Your task to perform on an android device: uninstall "Pluto TV - Live TV and Movies" Image 0: 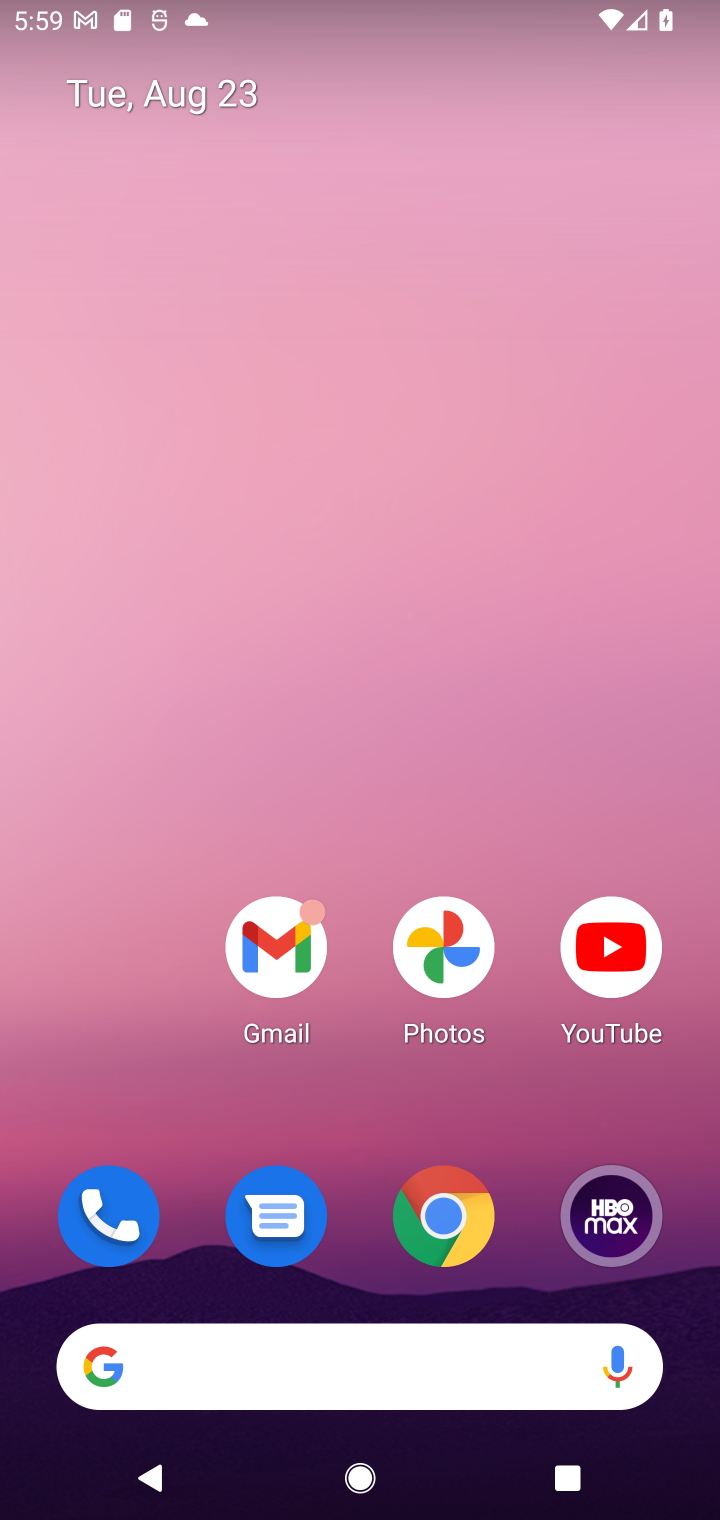
Step 0: drag from (353, 1191) to (439, 183)
Your task to perform on an android device: uninstall "Pluto TV - Live TV and Movies" Image 1: 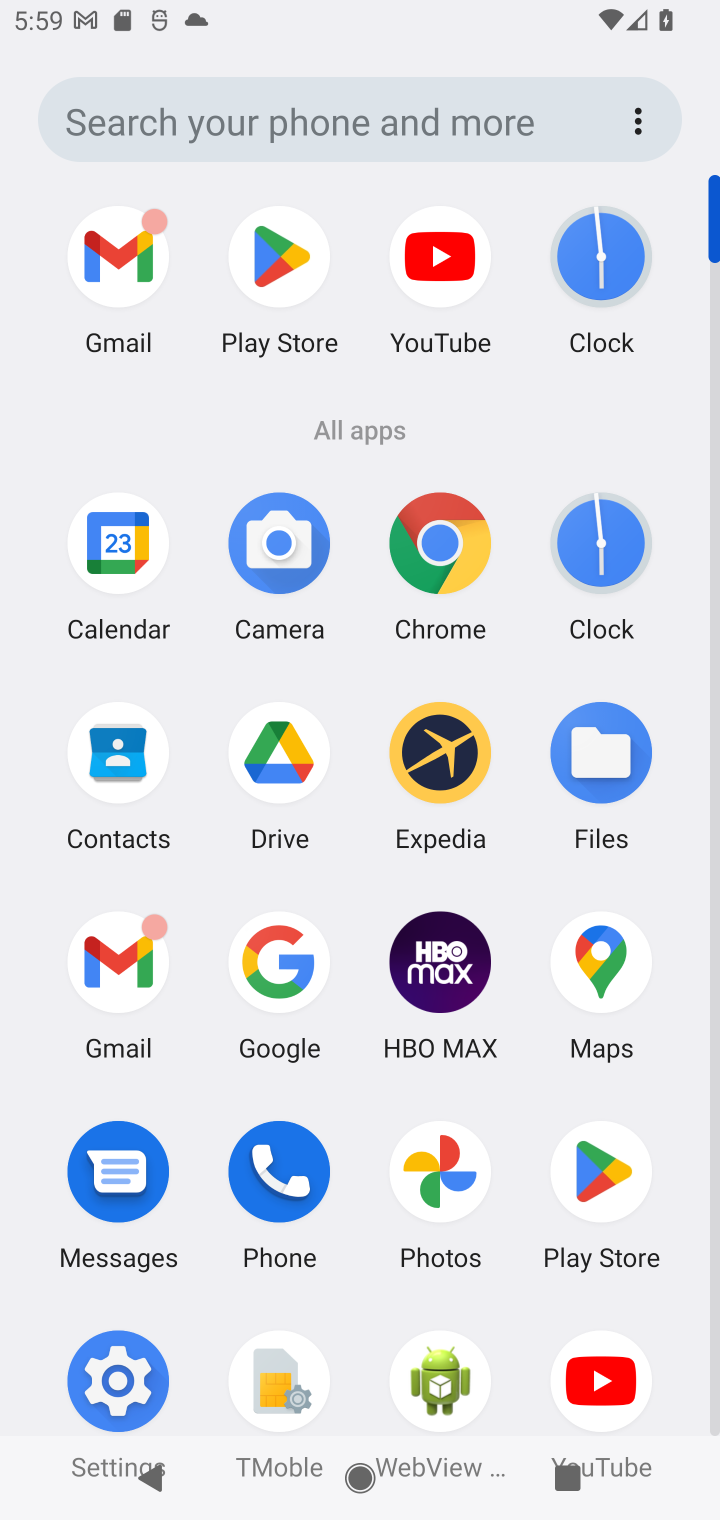
Step 1: click (608, 1184)
Your task to perform on an android device: uninstall "Pluto TV - Live TV and Movies" Image 2: 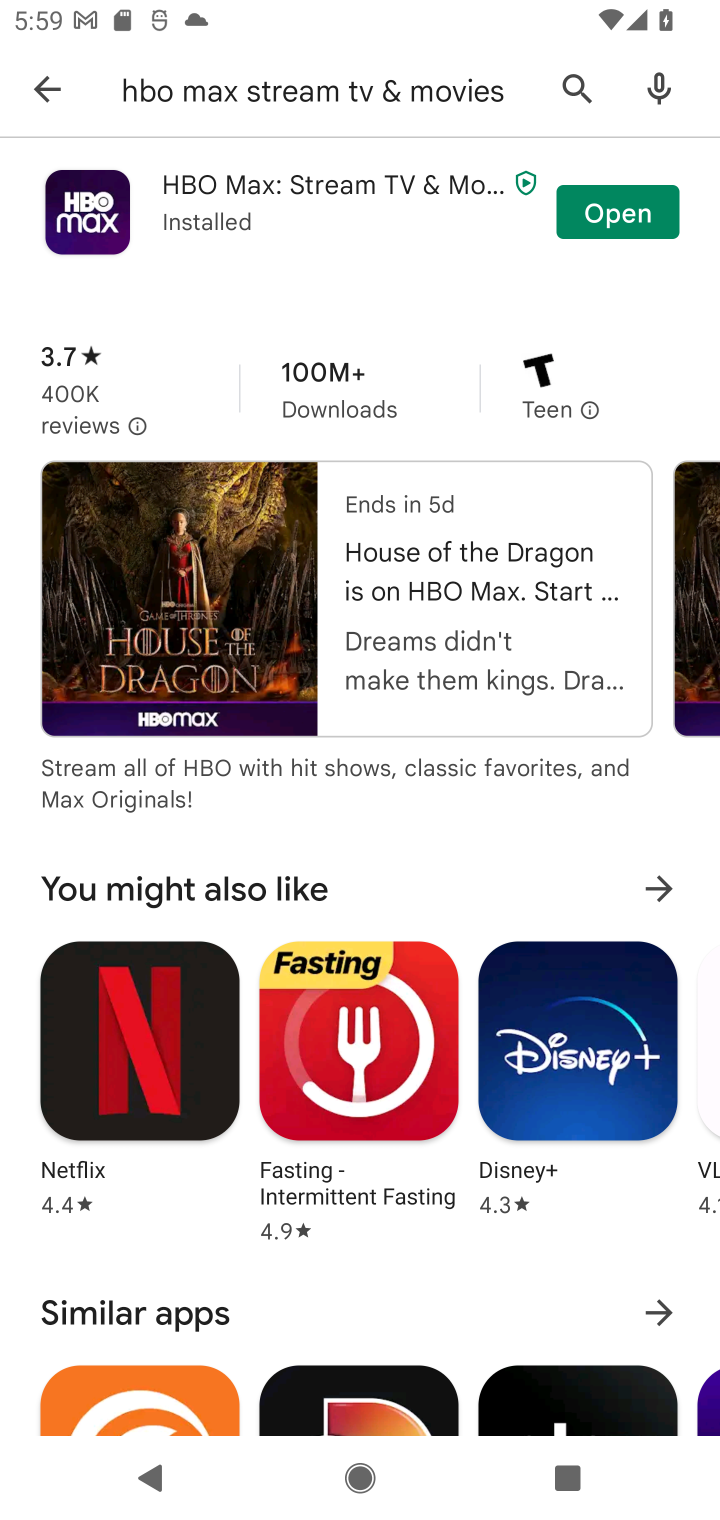
Step 2: type "Pluto TV - Live TV and Movies"
Your task to perform on an android device: uninstall "Pluto TV - Live TV and Movies" Image 3: 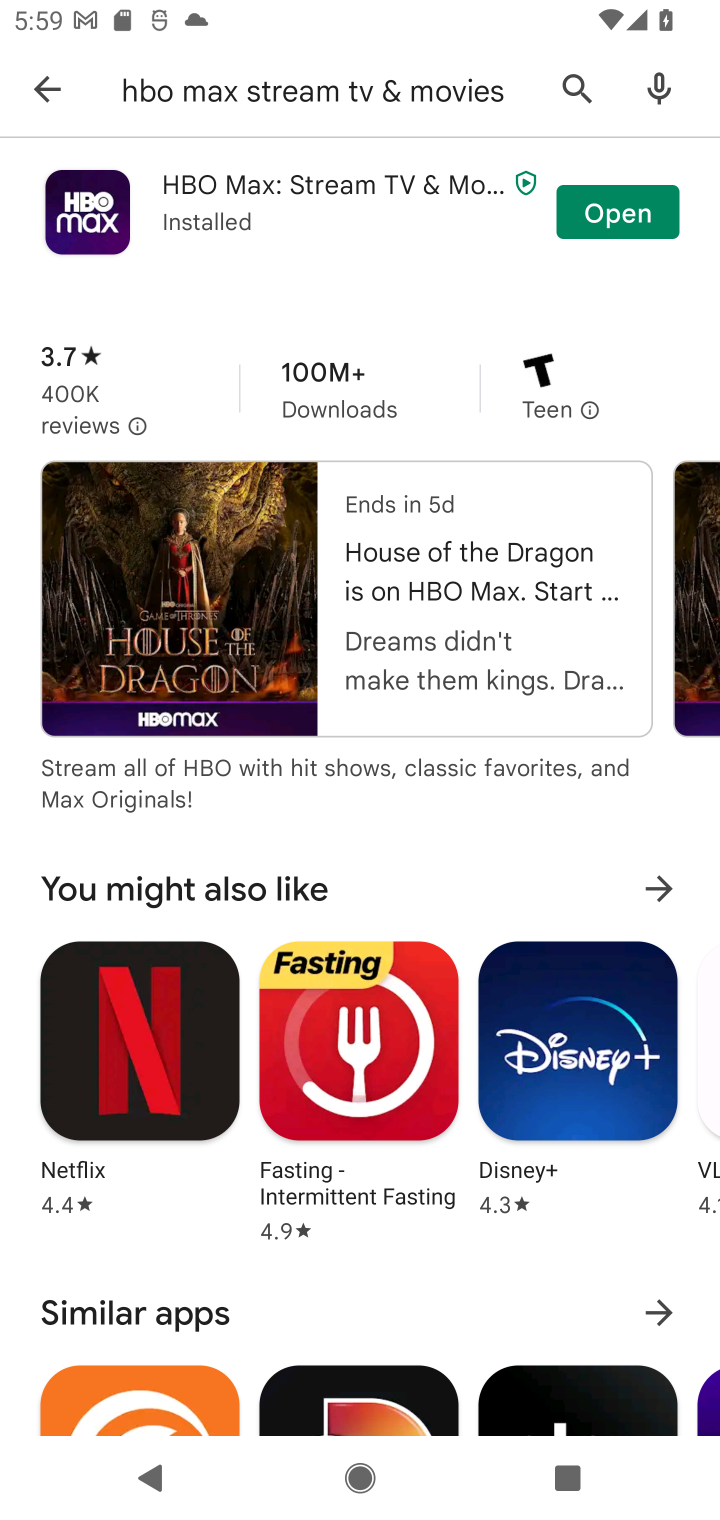
Step 3: click (574, 90)
Your task to perform on an android device: uninstall "Pluto TV - Live TV and Movies" Image 4: 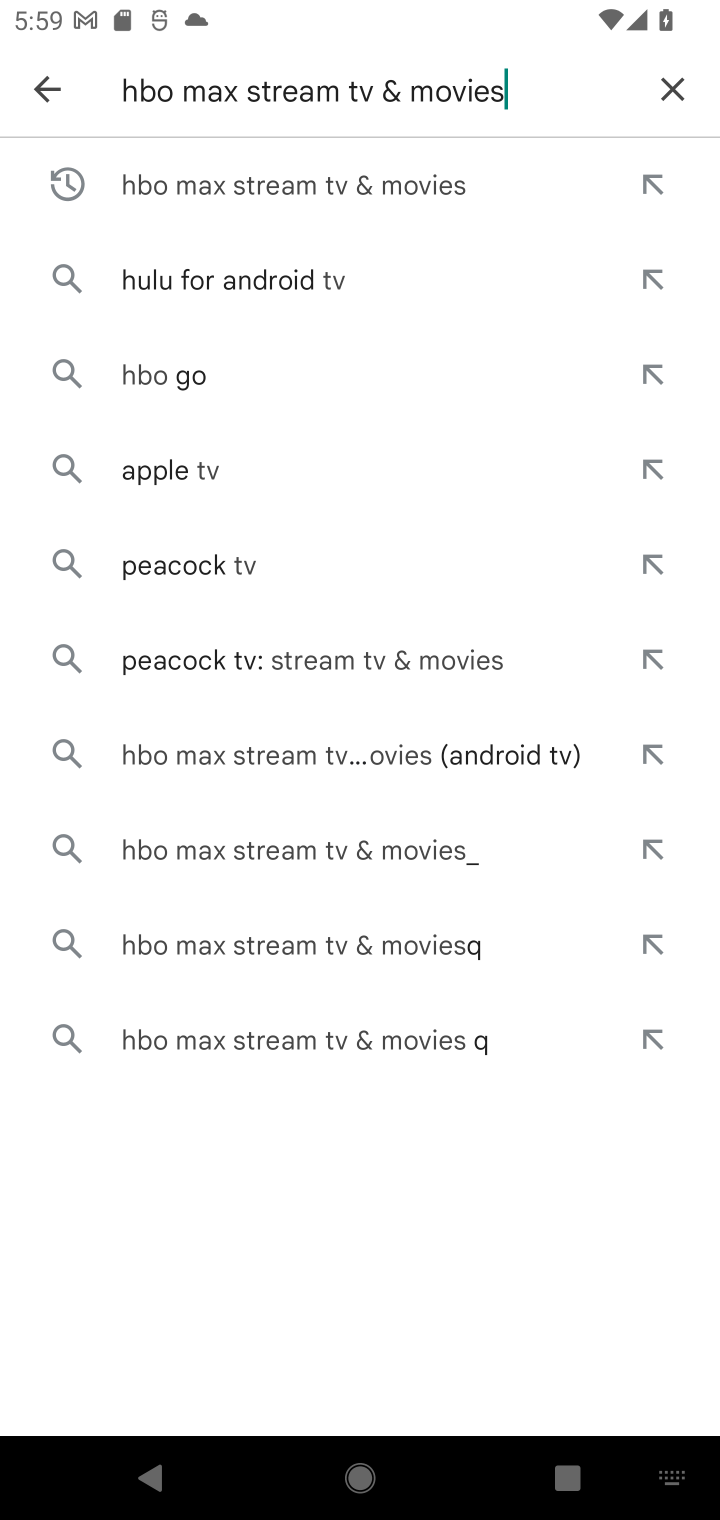
Step 4: click (677, 82)
Your task to perform on an android device: uninstall "Pluto TV - Live TV and Movies" Image 5: 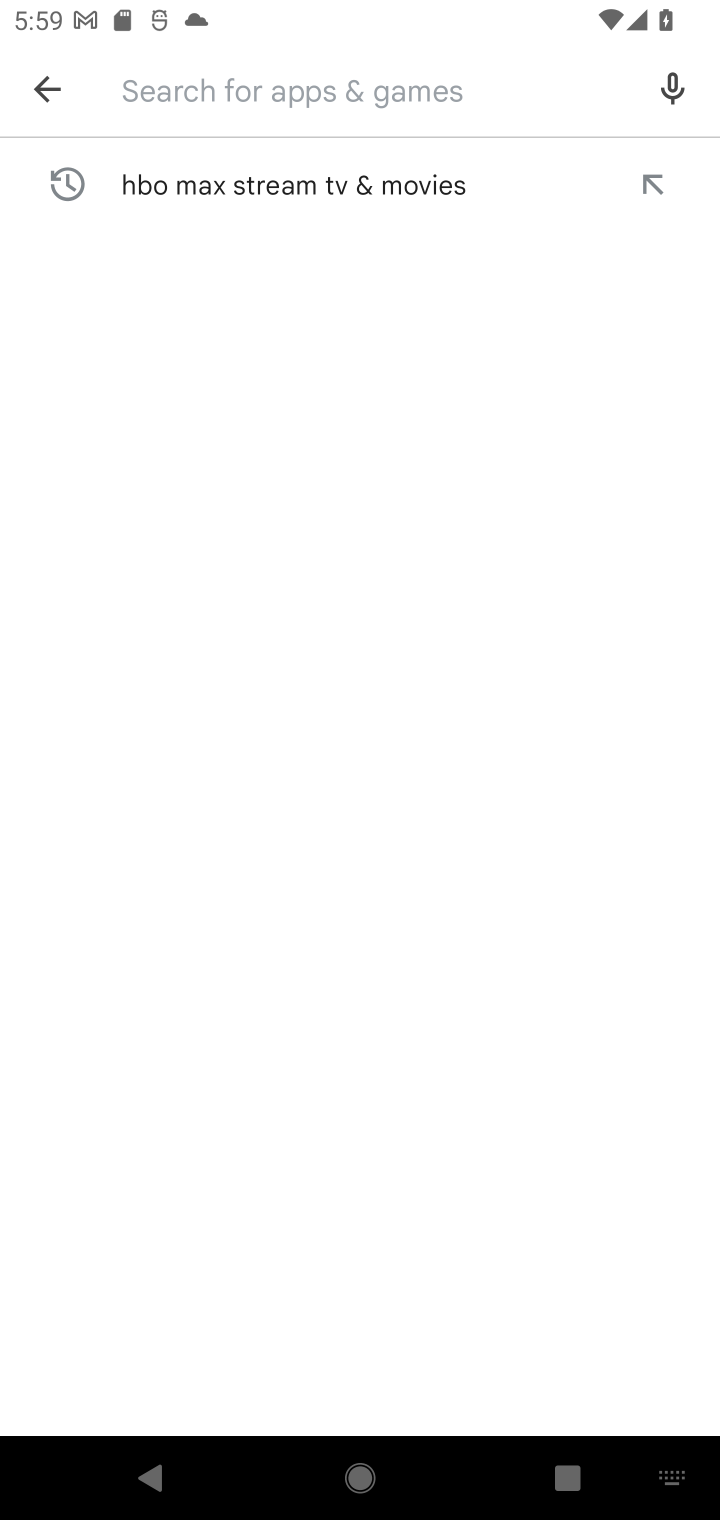
Step 5: type "Pluto TV - Live TV and Movies"
Your task to perform on an android device: uninstall "Pluto TV - Live TV and Movies" Image 6: 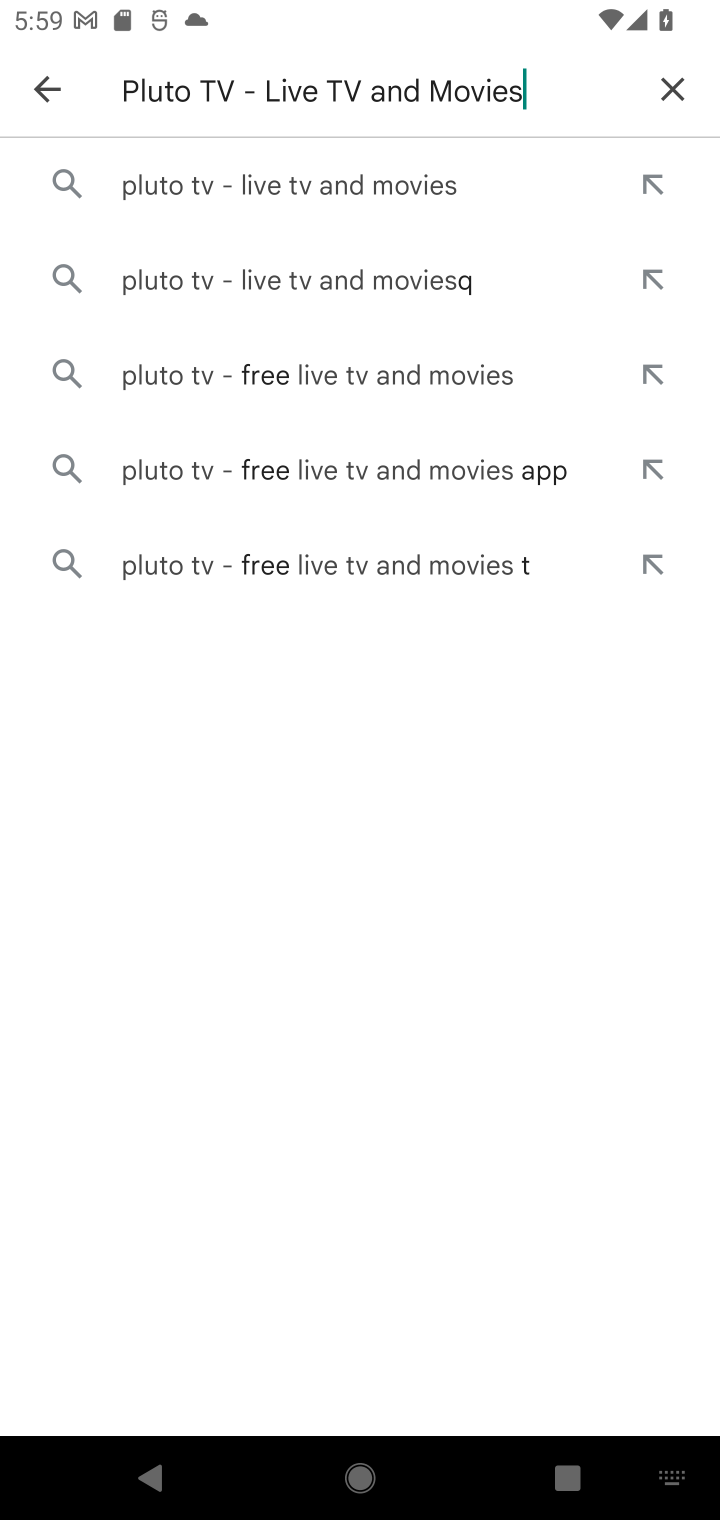
Step 6: click (324, 175)
Your task to perform on an android device: uninstall "Pluto TV - Live TV and Movies" Image 7: 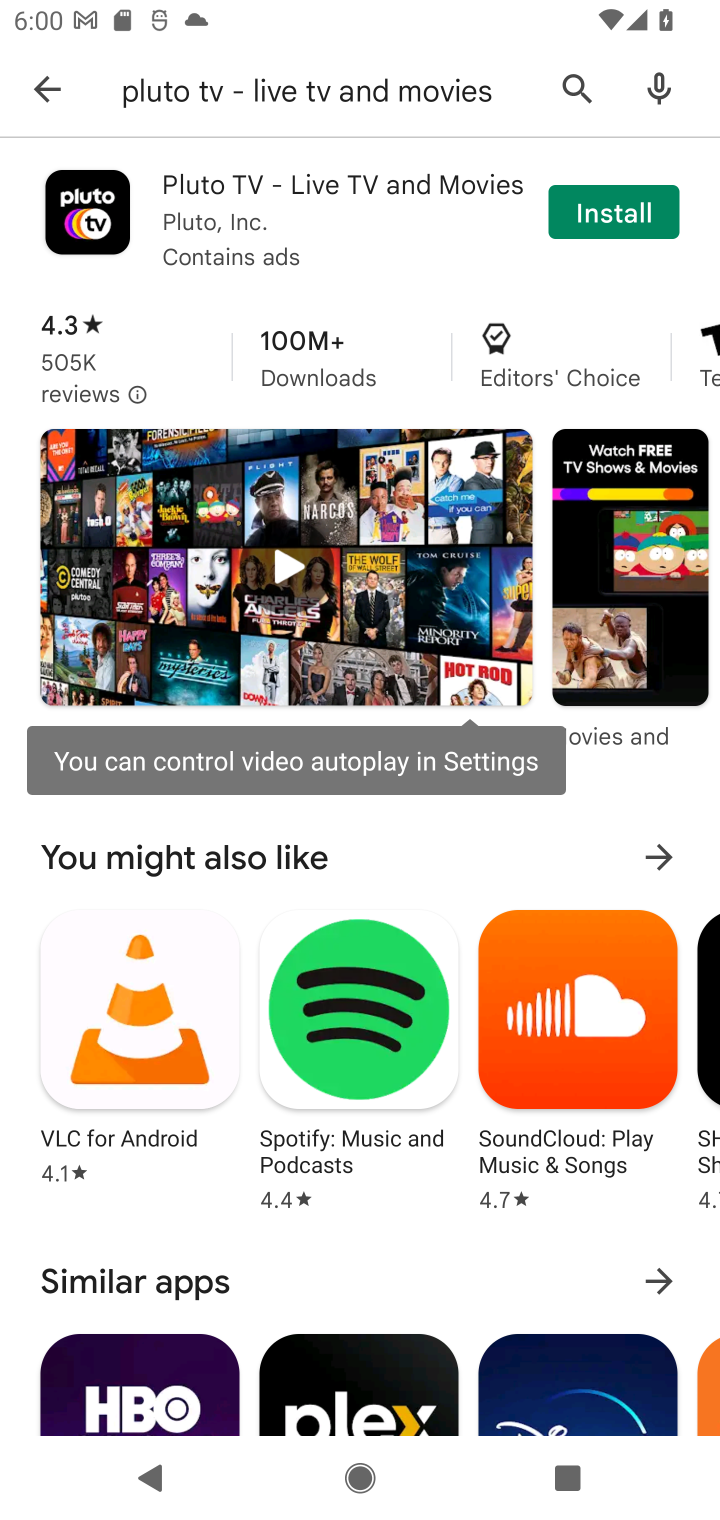
Step 7: task complete